Your task to perform on an android device: allow notifications from all sites in the chrome app Image 0: 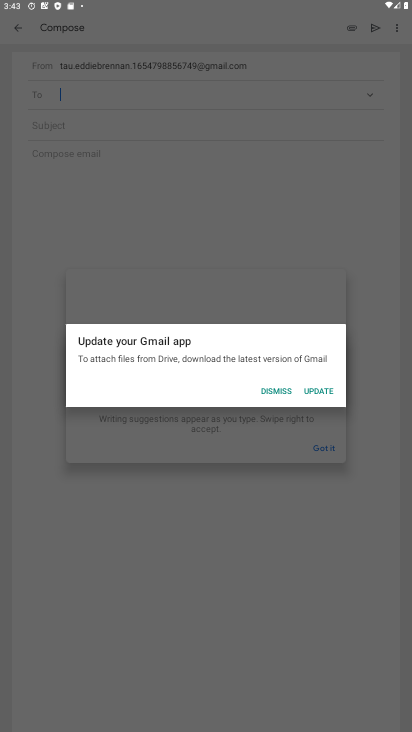
Step 0: press home button
Your task to perform on an android device: allow notifications from all sites in the chrome app Image 1: 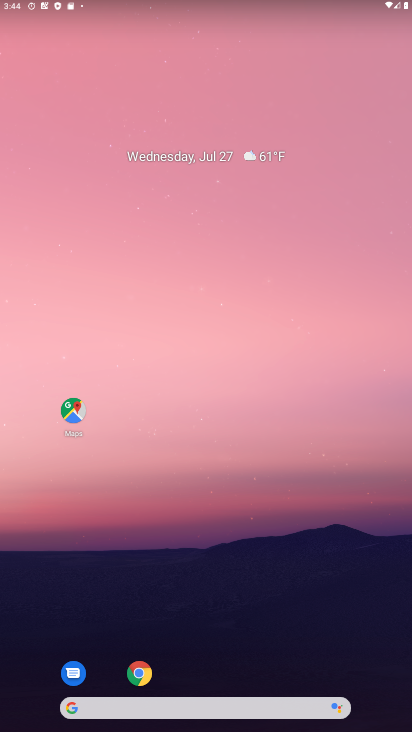
Step 1: drag from (107, 455) to (169, 132)
Your task to perform on an android device: allow notifications from all sites in the chrome app Image 2: 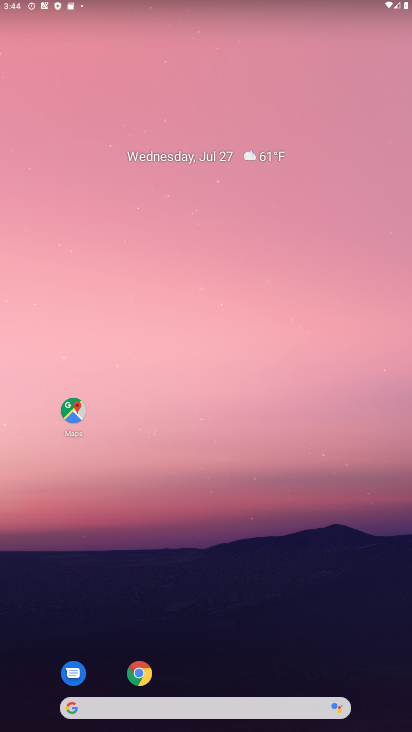
Step 2: drag from (42, 685) to (227, 51)
Your task to perform on an android device: allow notifications from all sites in the chrome app Image 3: 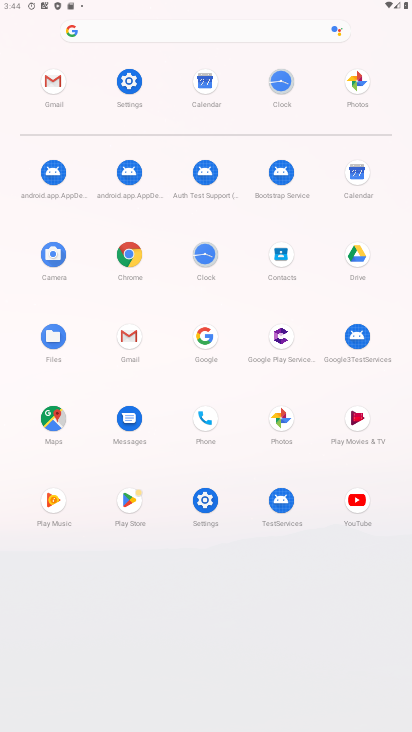
Step 3: click (129, 258)
Your task to perform on an android device: allow notifications from all sites in the chrome app Image 4: 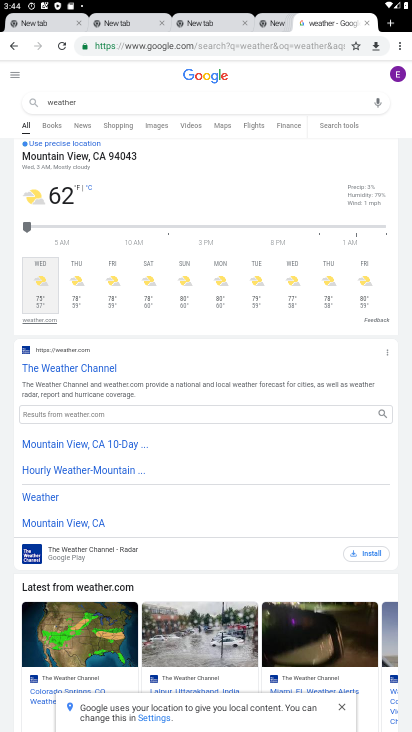
Step 4: click (398, 46)
Your task to perform on an android device: allow notifications from all sites in the chrome app Image 5: 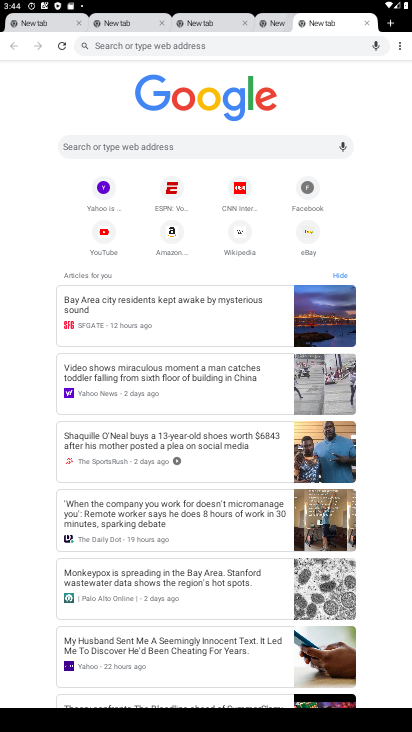
Step 5: click (400, 46)
Your task to perform on an android device: allow notifications from all sites in the chrome app Image 6: 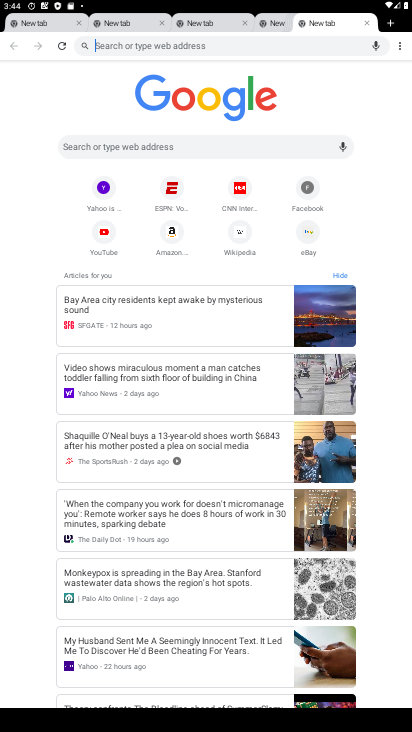
Step 6: click (395, 45)
Your task to perform on an android device: allow notifications from all sites in the chrome app Image 7: 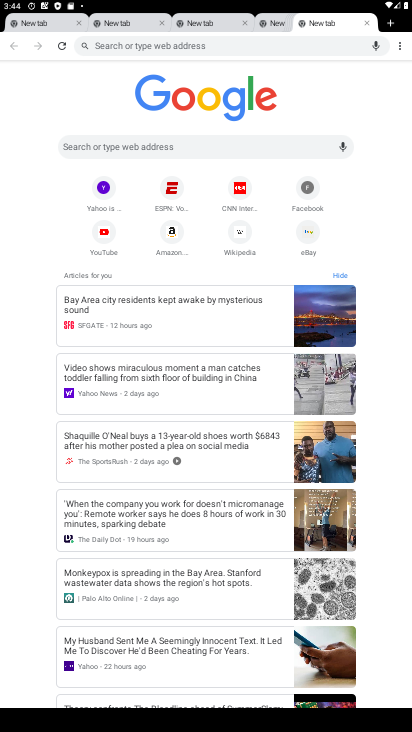
Step 7: task complete